Your task to perform on an android device: open app "Spotify" (install if not already installed) and enter user name: "infallible@icloud.com" and password: "implored" Image 0: 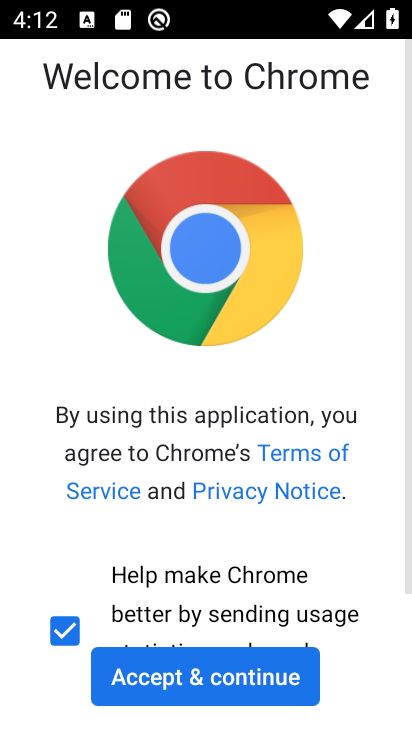
Step 0: press home button
Your task to perform on an android device: open app "Spotify" (install if not already installed) and enter user name: "infallible@icloud.com" and password: "implored" Image 1: 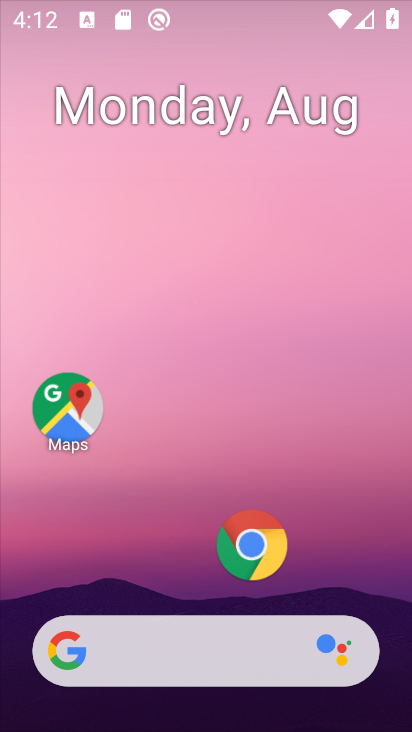
Step 1: drag from (191, 578) to (277, 60)
Your task to perform on an android device: open app "Spotify" (install if not already installed) and enter user name: "infallible@icloud.com" and password: "implored" Image 2: 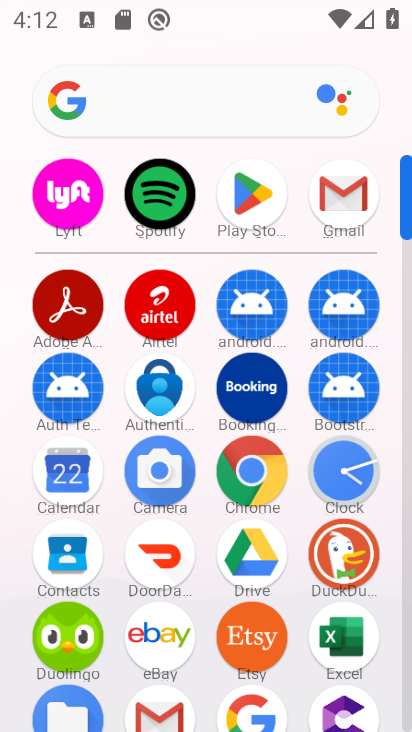
Step 2: click (235, 197)
Your task to perform on an android device: open app "Spotify" (install if not already installed) and enter user name: "infallible@icloud.com" and password: "implored" Image 3: 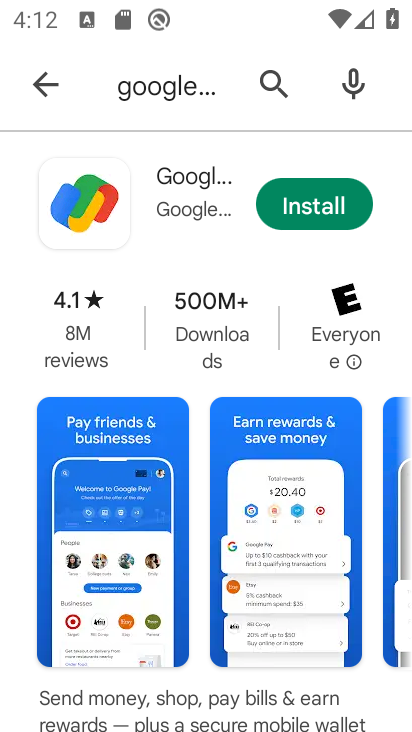
Step 3: click (267, 86)
Your task to perform on an android device: open app "Spotify" (install if not already installed) and enter user name: "infallible@icloud.com" and password: "implored" Image 4: 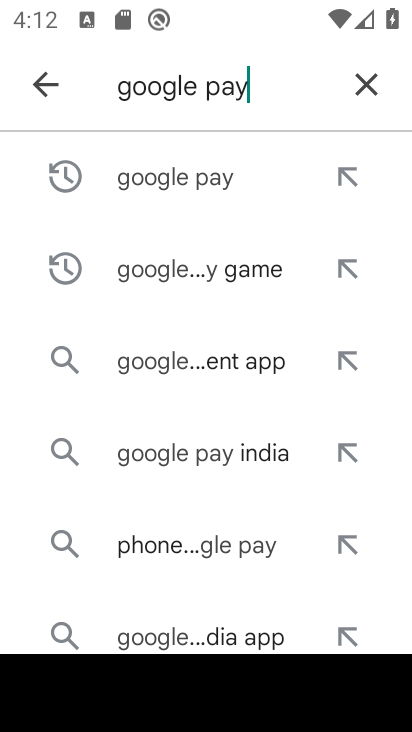
Step 4: click (359, 75)
Your task to perform on an android device: open app "Spotify" (install if not already installed) and enter user name: "infallible@icloud.com" and password: "implored" Image 5: 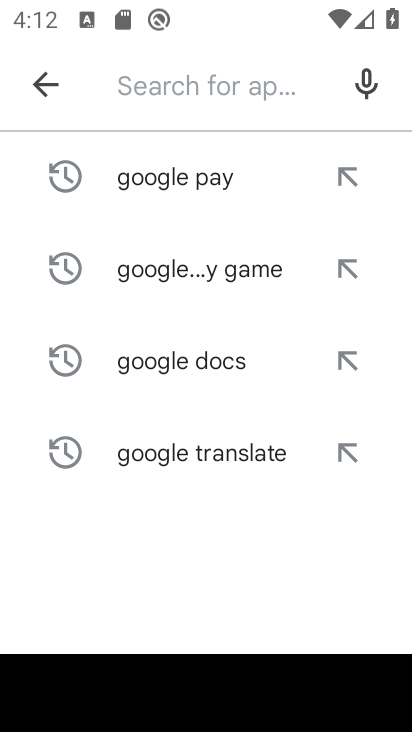
Step 5: click (156, 104)
Your task to perform on an android device: open app "Spotify" (install if not already installed) and enter user name: "infallible@icloud.com" and password: "implored" Image 6: 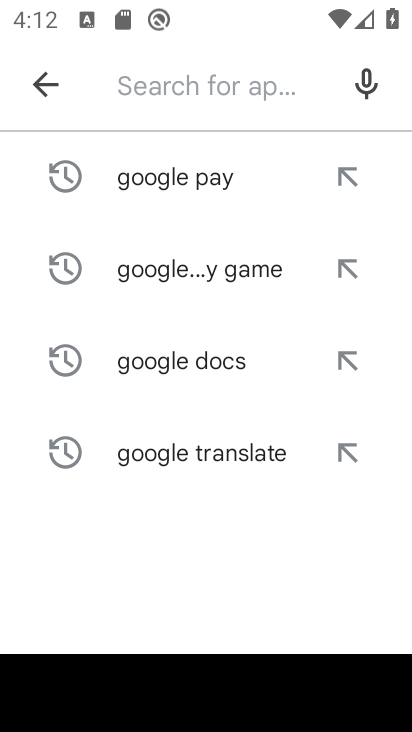
Step 6: type "Spotify"
Your task to perform on an android device: open app "Spotify" (install if not already installed) and enter user name: "infallible@icloud.com" and password: "implored" Image 7: 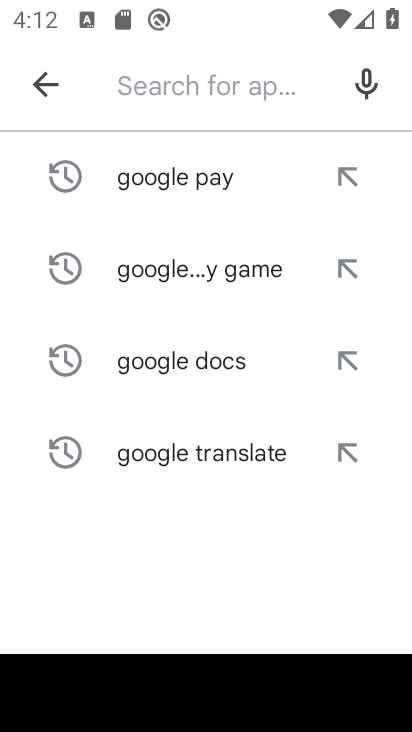
Step 7: click (267, 595)
Your task to perform on an android device: open app "Spotify" (install if not already installed) and enter user name: "infallible@icloud.com" and password: "implored" Image 8: 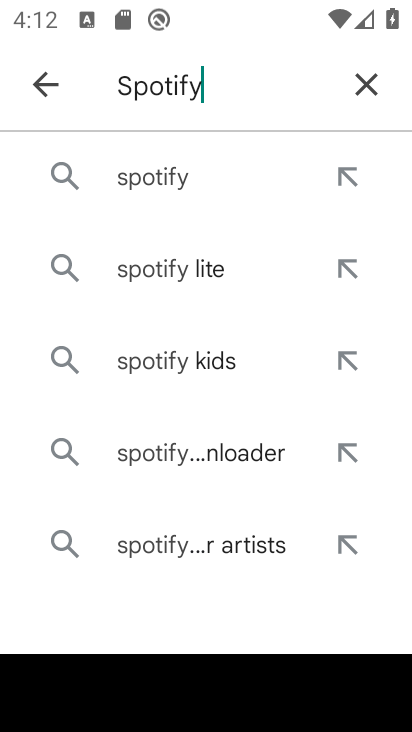
Step 8: click (178, 160)
Your task to perform on an android device: open app "Spotify" (install if not already installed) and enter user name: "infallible@icloud.com" and password: "implored" Image 9: 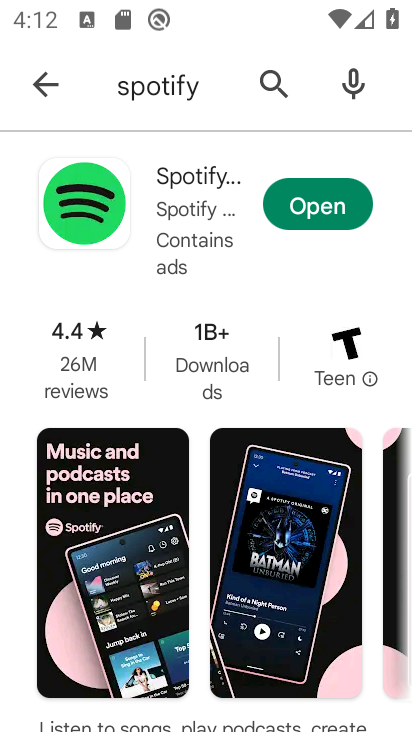
Step 9: click (302, 200)
Your task to perform on an android device: open app "Spotify" (install if not already installed) and enter user name: "infallible@icloud.com" and password: "implored" Image 10: 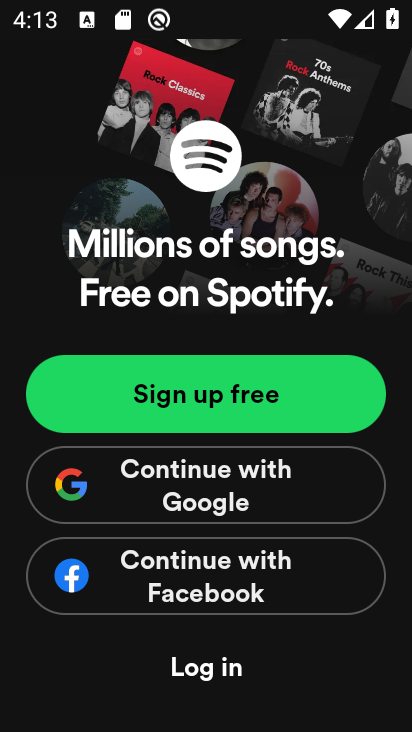
Step 10: click (221, 662)
Your task to perform on an android device: open app "Spotify" (install if not already installed) and enter user name: "infallible@icloud.com" and password: "implored" Image 11: 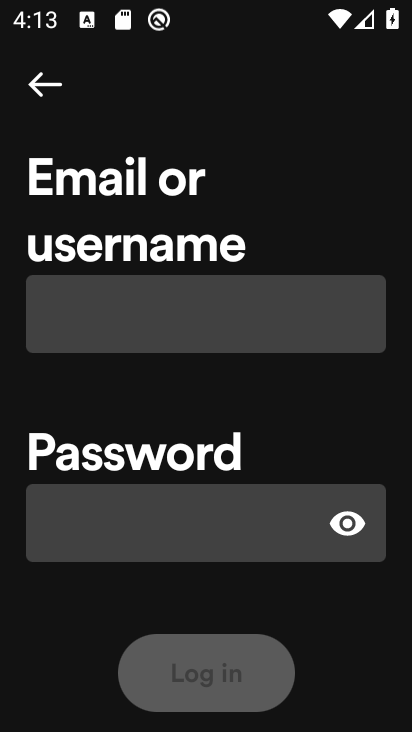
Step 11: click (161, 316)
Your task to perform on an android device: open app "Spotify" (install if not already installed) and enter user name: "infallible@icloud.com" and password: "implored" Image 12: 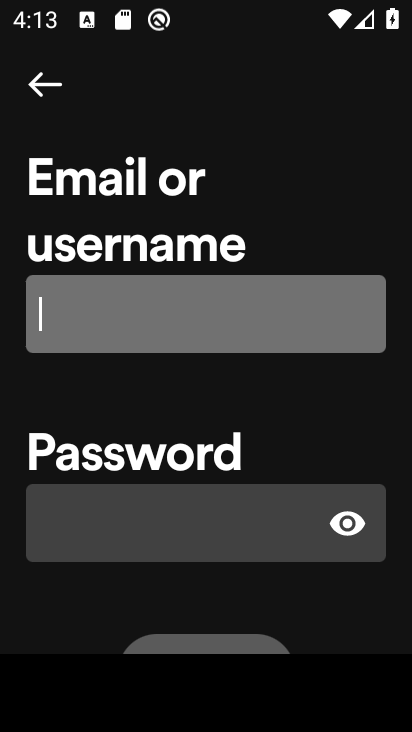
Step 12: type "infallible@icloud.com"
Your task to perform on an android device: open app "Spotify" (install if not already installed) and enter user name: "infallible@icloud.com" and password: "implored" Image 13: 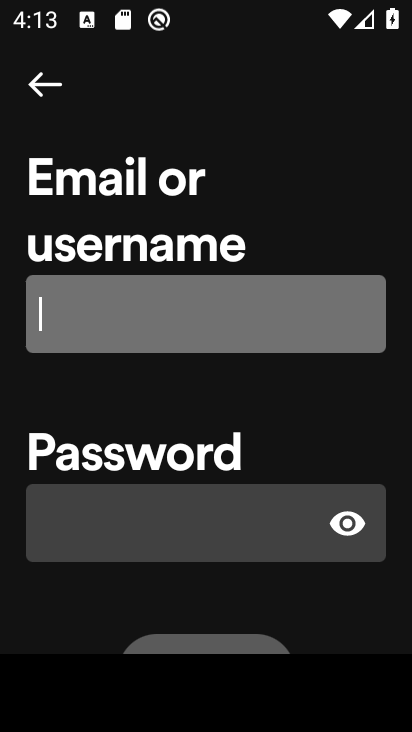
Step 13: click (195, 495)
Your task to perform on an android device: open app "Spotify" (install if not already installed) and enter user name: "infallible@icloud.com" and password: "implored" Image 14: 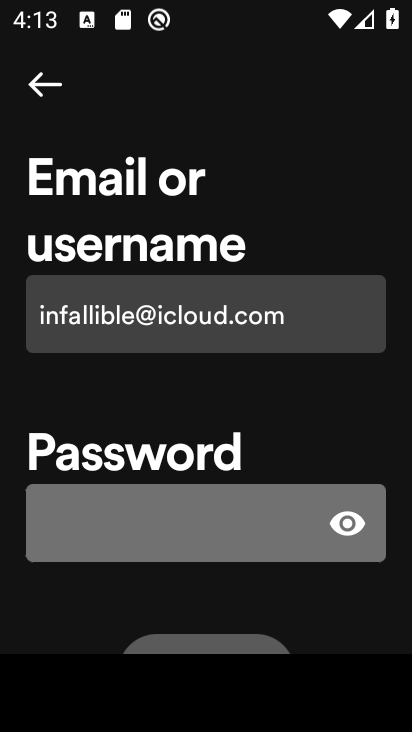
Step 14: click (117, 523)
Your task to perform on an android device: open app "Spotify" (install if not already installed) and enter user name: "infallible@icloud.com" and password: "implored" Image 15: 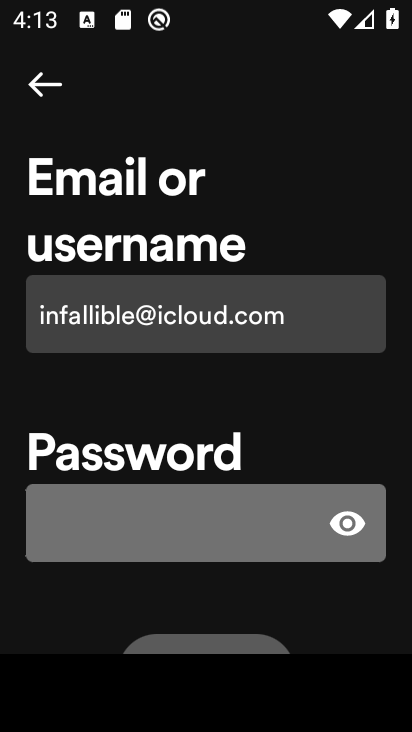
Step 15: type "implored"
Your task to perform on an android device: open app "Spotify" (install if not already installed) and enter user name: "infallible@icloud.com" and password: "implored" Image 16: 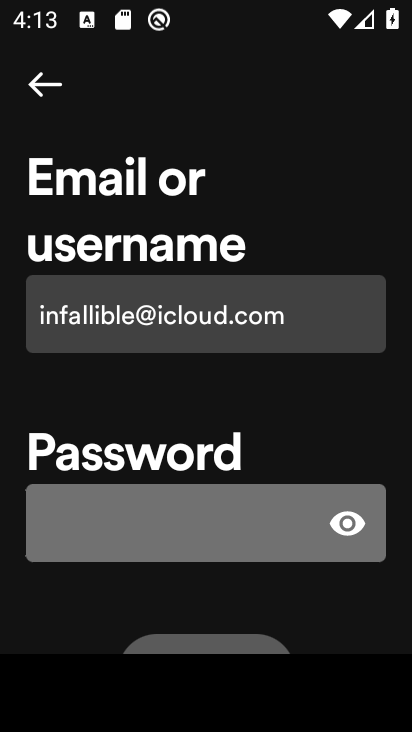
Step 16: click (42, 611)
Your task to perform on an android device: open app "Spotify" (install if not already installed) and enter user name: "infallible@icloud.com" and password: "implored" Image 17: 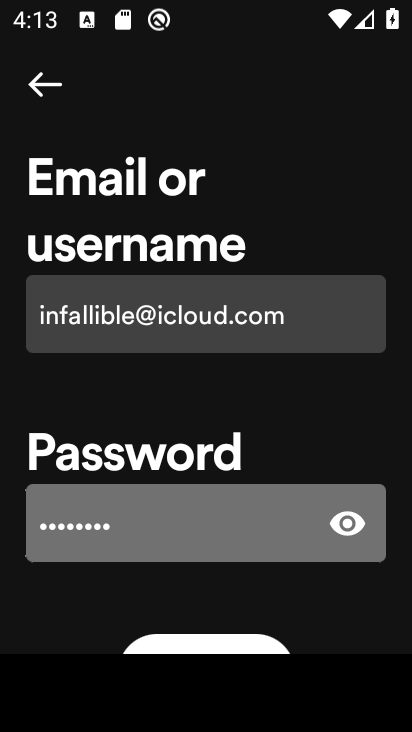
Step 17: click (41, 619)
Your task to perform on an android device: open app "Spotify" (install if not already installed) and enter user name: "infallible@icloud.com" and password: "implored" Image 18: 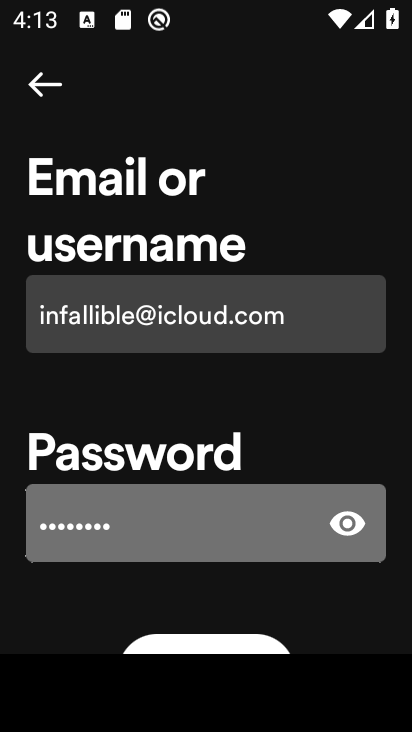
Step 18: task complete